Your task to perform on an android device: Check the weather Image 0: 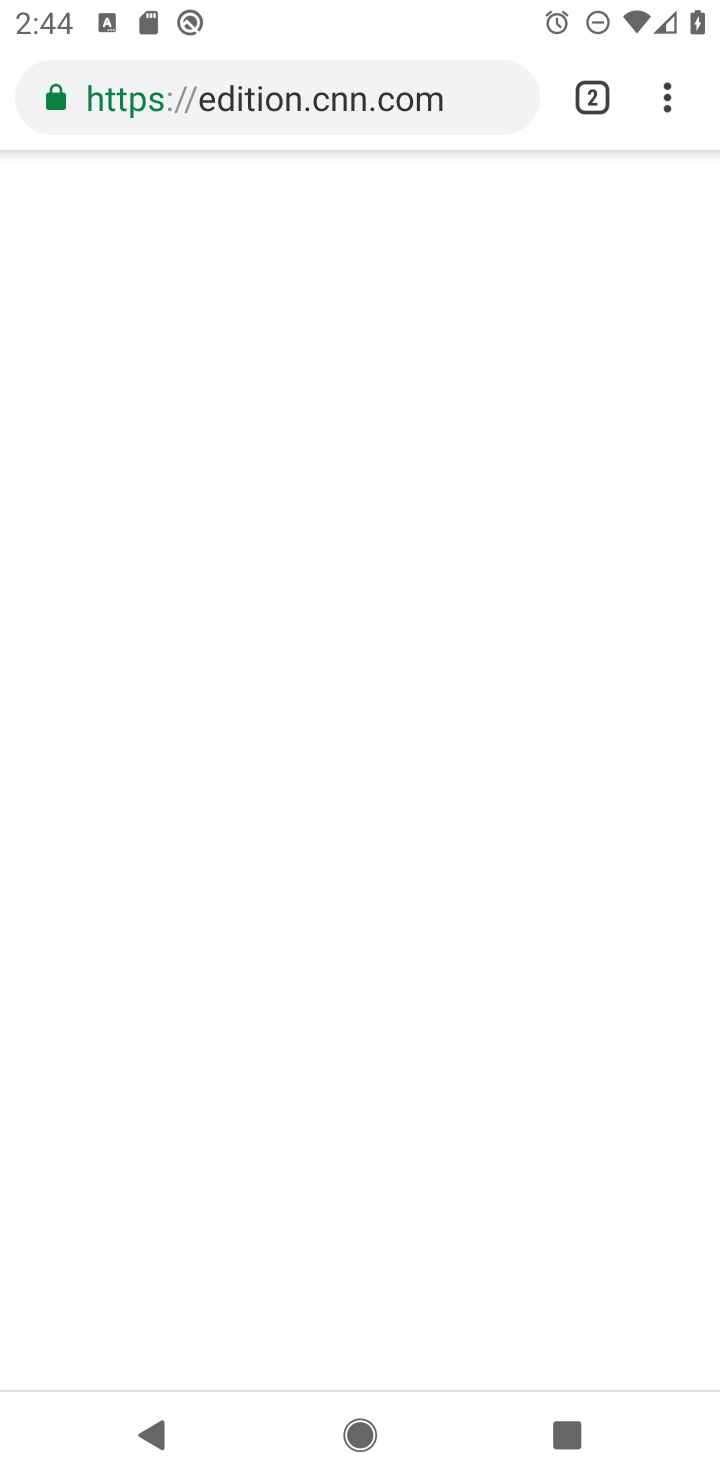
Step 0: press home button
Your task to perform on an android device: Check the weather Image 1: 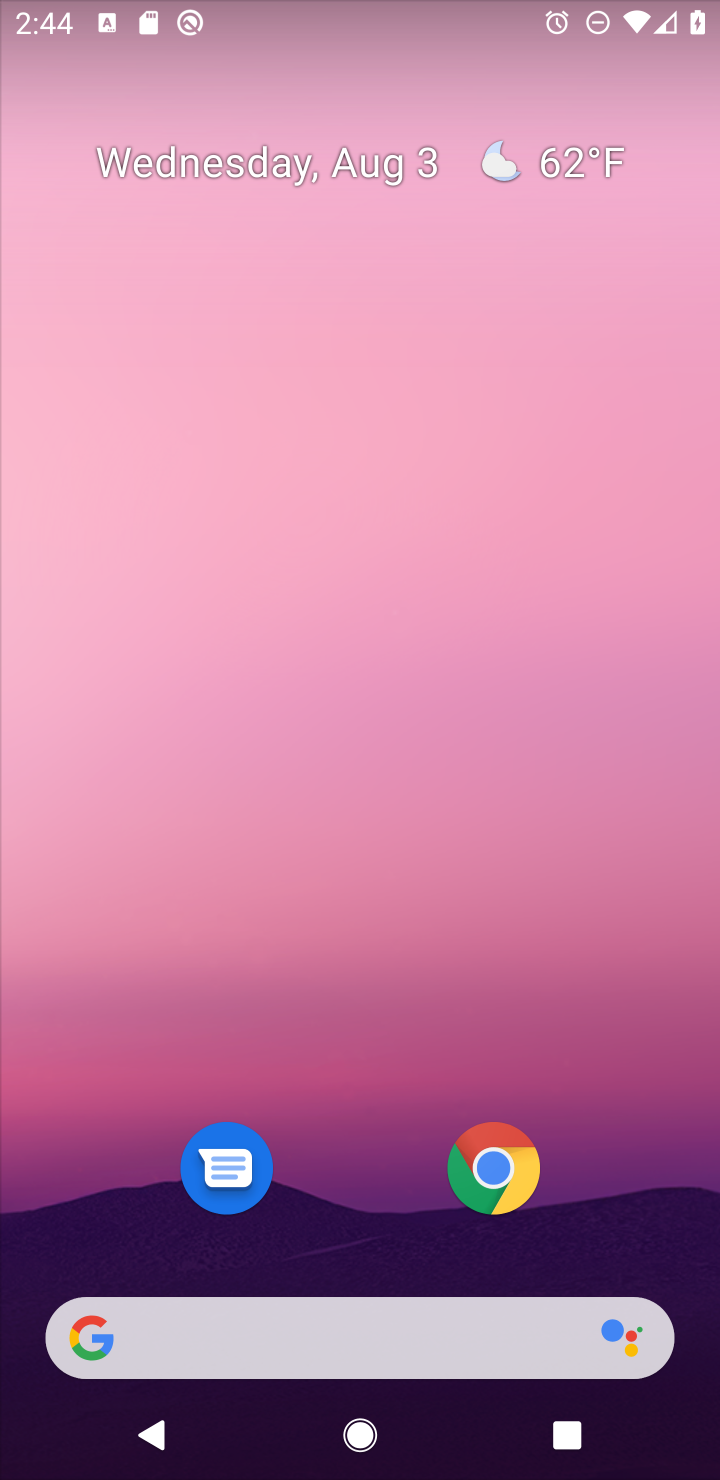
Step 1: click (605, 160)
Your task to perform on an android device: Check the weather Image 2: 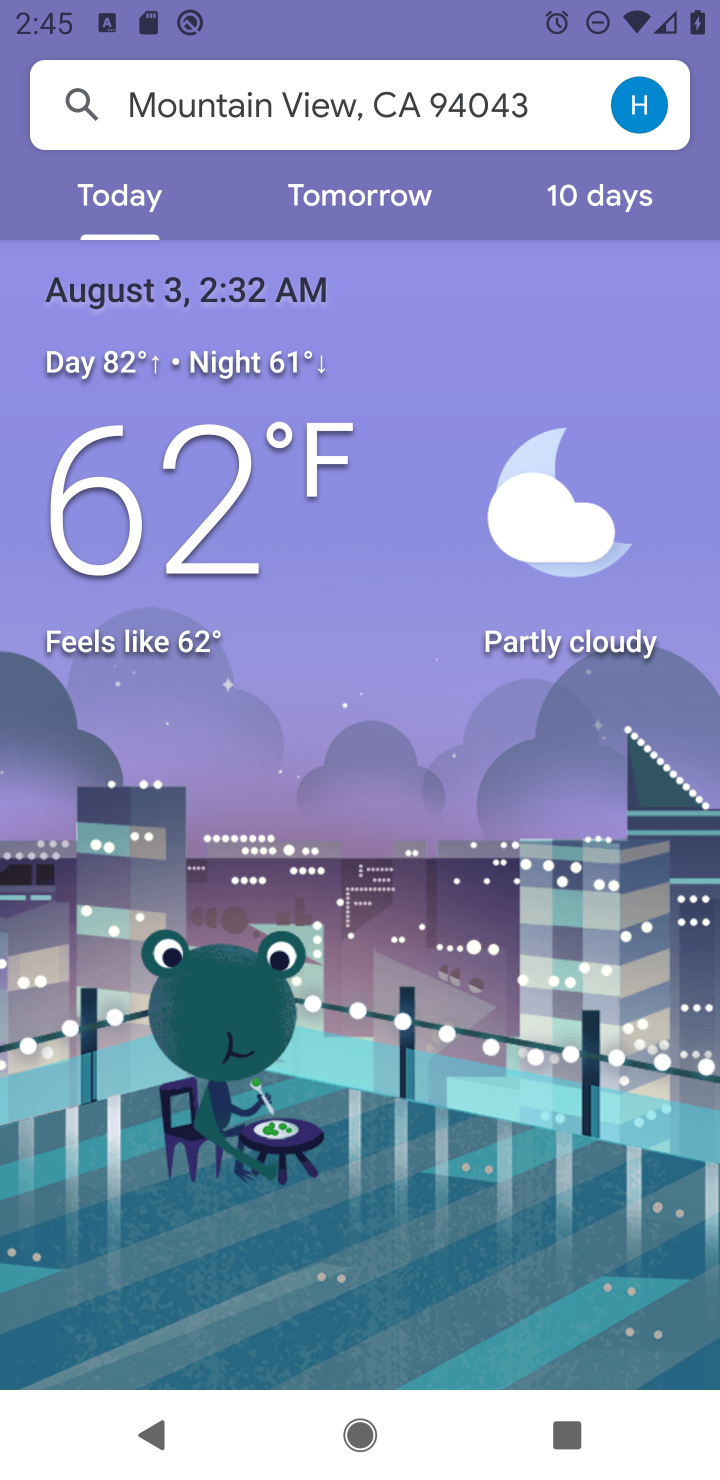
Step 2: task complete